Your task to perform on an android device: turn off location history Image 0: 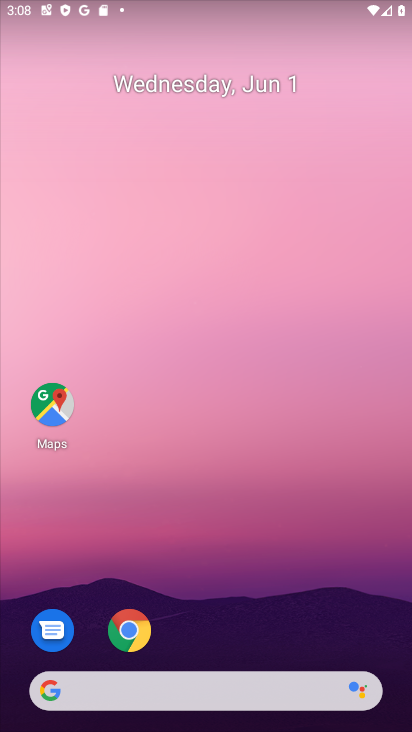
Step 0: drag from (259, 586) to (309, 163)
Your task to perform on an android device: turn off location history Image 1: 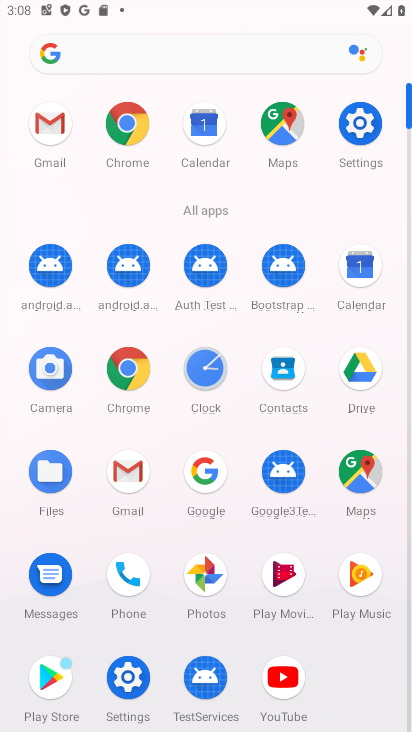
Step 1: click (367, 125)
Your task to perform on an android device: turn off location history Image 2: 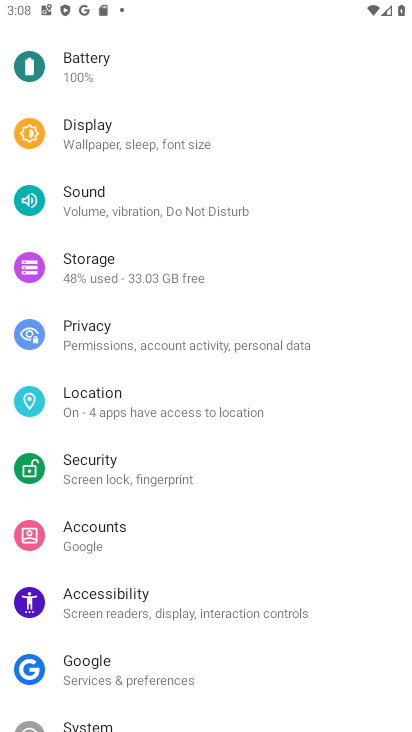
Step 2: click (98, 403)
Your task to perform on an android device: turn off location history Image 3: 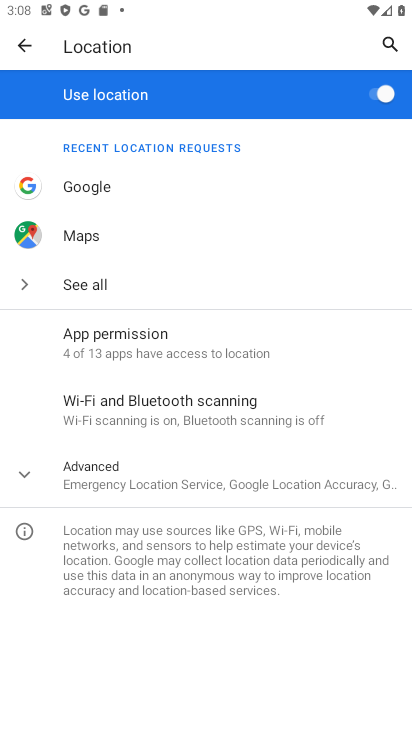
Step 3: click (146, 465)
Your task to perform on an android device: turn off location history Image 4: 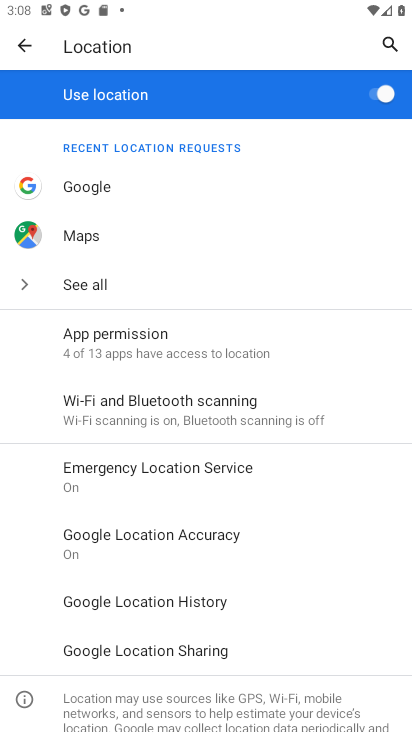
Step 4: click (228, 590)
Your task to perform on an android device: turn off location history Image 5: 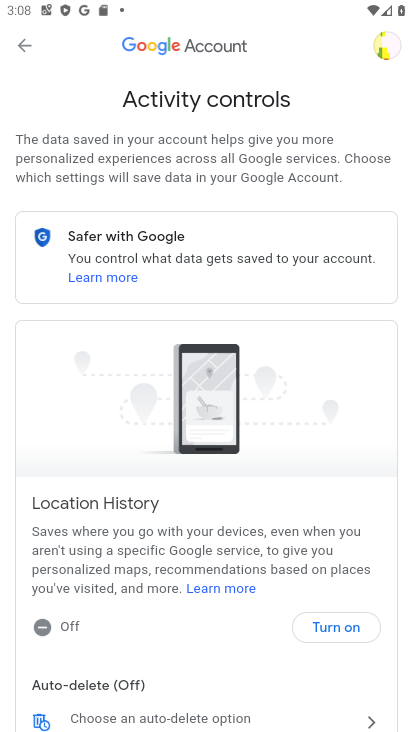
Step 5: task complete